Your task to perform on an android device: turn pop-ups on in chrome Image 0: 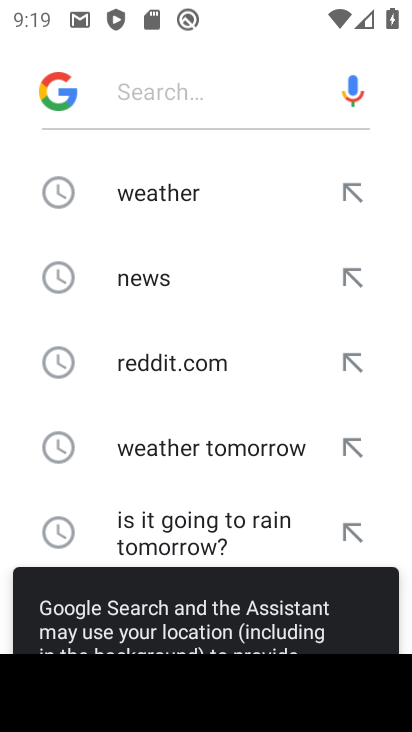
Step 0: type "reddit"
Your task to perform on an android device: turn pop-ups on in chrome Image 1: 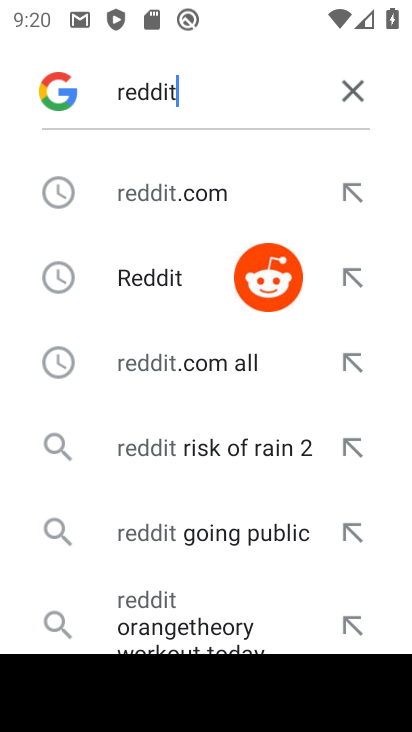
Step 1: click (183, 165)
Your task to perform on an android device: turn pop-ups on in chrome Image 2: 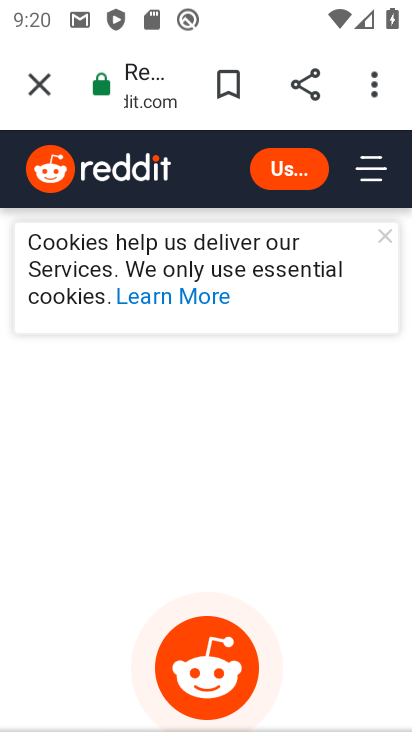
Step 2: task complete